Your task to perform on an android device: When is my next meeting? Image 0: 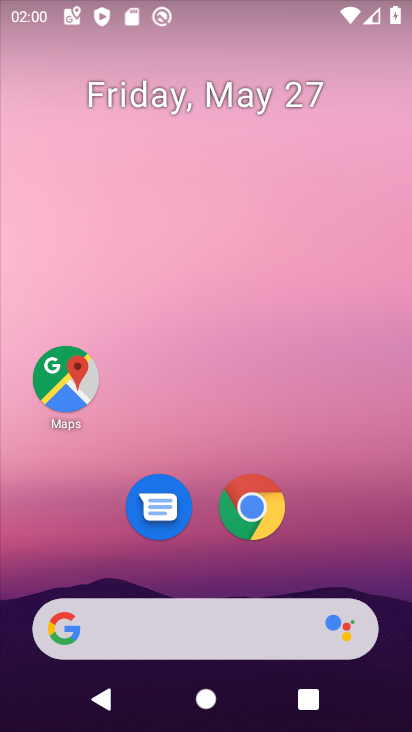
Step 0: drag from (212, 574) to (272, 44)
Your task to perform on an android device: When is my next meeting? Image 1: 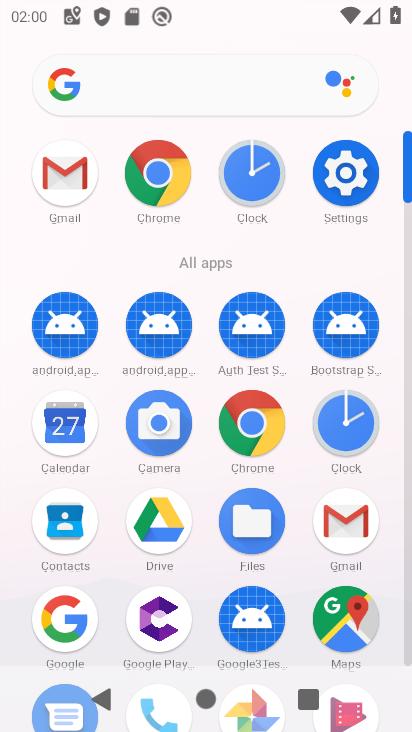
Step 1: click (39, 416)
Your task to perform on an android device: When is my next meeting? Image 2: 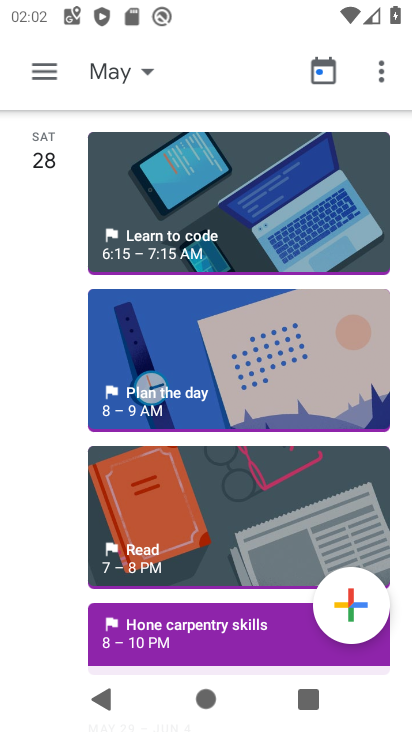
Step 2: click (127, 72)
Your task to perform on an android device: When is my next meeting? Image 3: 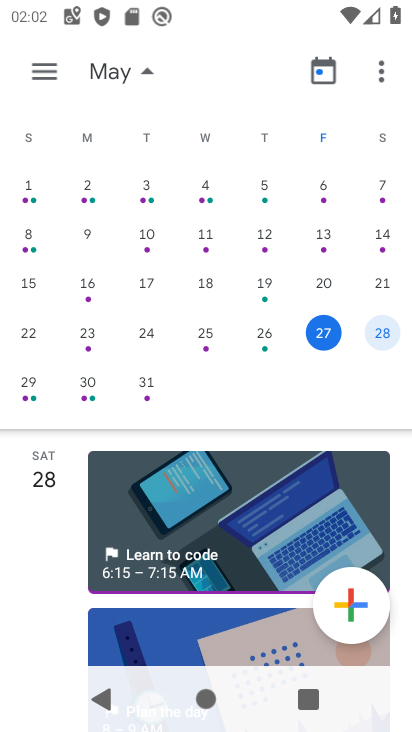
Step 3: click (319, 333)
Your task to perform on an android device: When is my next meeting? Image 4: 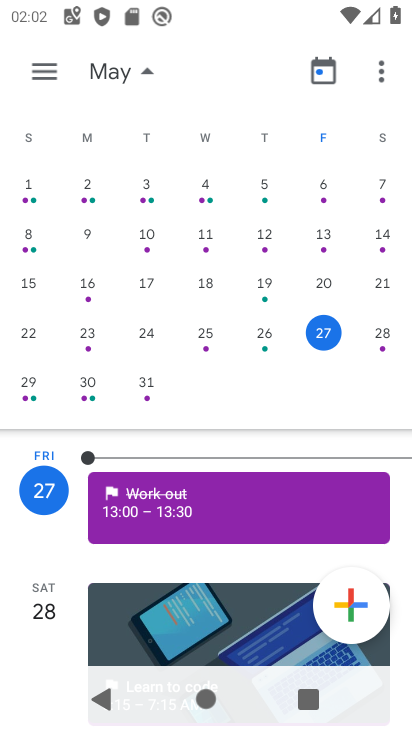
Step 4: task complete